Your task to perform on an android device: Go to internet settings Image 0: 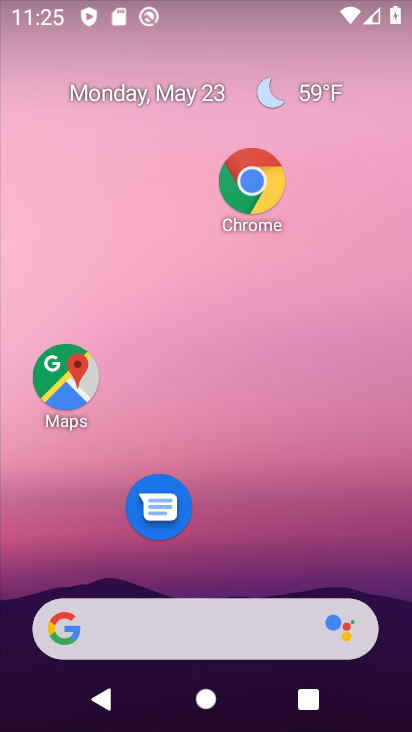
Step 0: drag from (235, 547) to (232, 214)
Your task to perform on an android device: Go to internet settings Image 1: 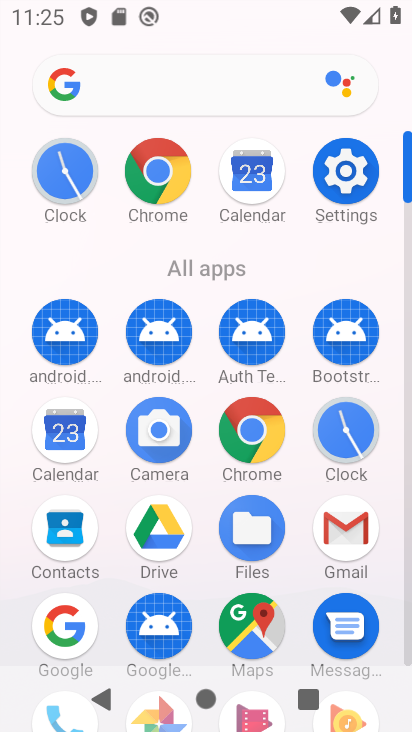
Step 1: click (339, 168)
Your task to perform on an android device: Go to internet settings Image 2: 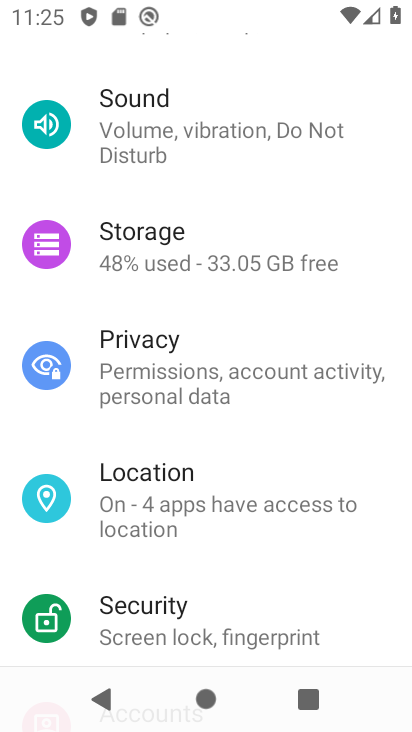
Step 2: drag from (230, 175) to (213, 629)
Your task to perform on an android device: Go to internet settings Image 3: 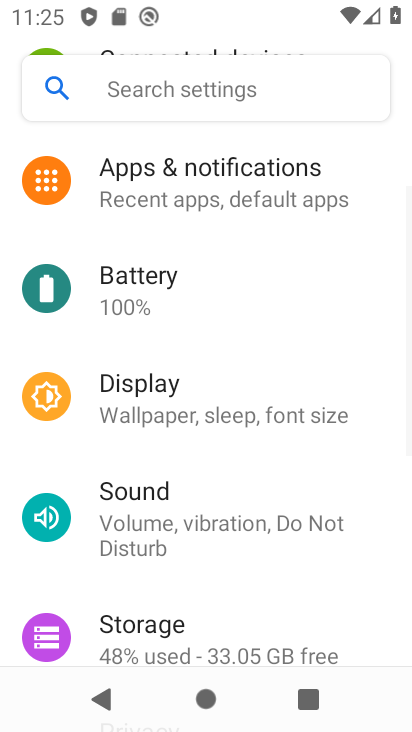
Step 3: drag from (226, 174) to (168, 577)
Your task to perform on an android device: Go to internet settings Image 4: 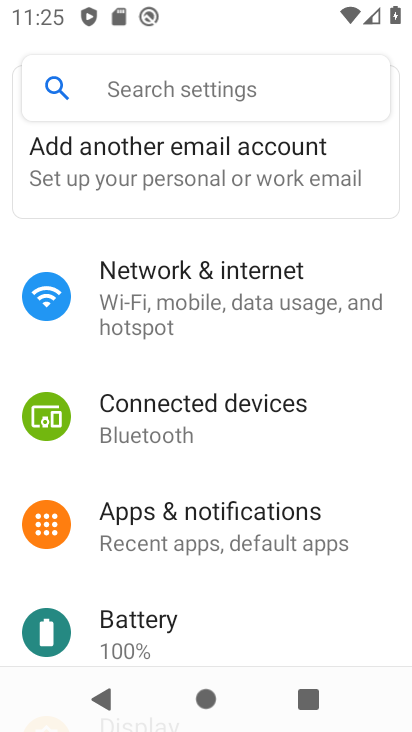
Step 4: click (150, 297)
Your task to perform on an android device: Go to internet settings Image 5: 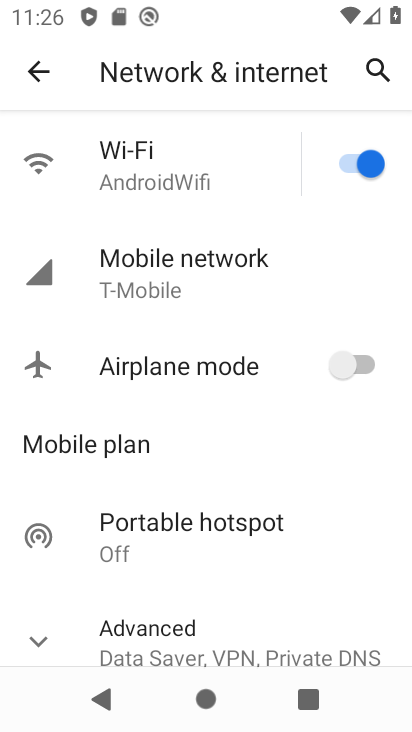
Step 5: task complete